Your task to perform on an android device: turn notification dots on Image 0: 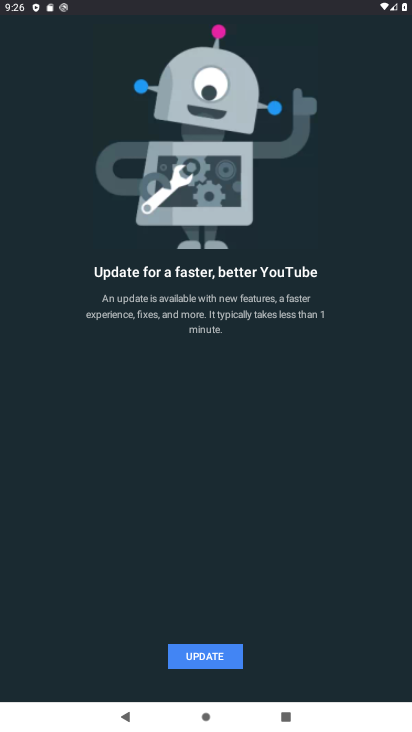
Step 0: press home button
Your task to perform on an android device: turn notification dots on Image 1: 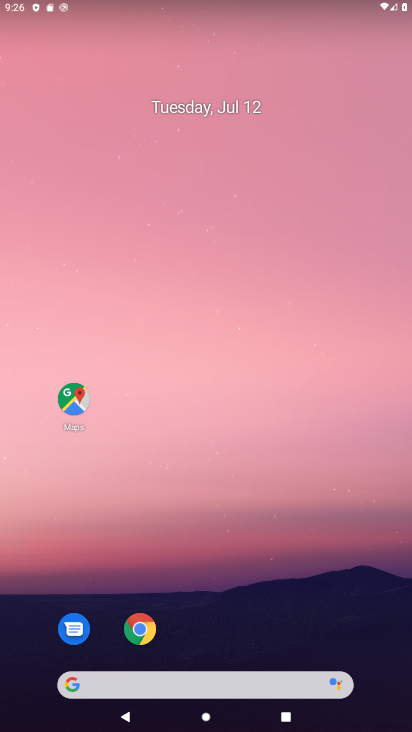
Step 1: drag from (282, 615) to (202, 124)
Your task to perform on an android device: turn notification dots on Image 2: 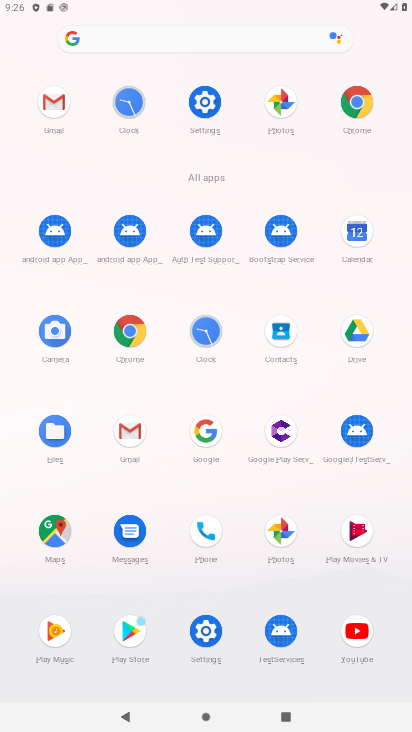
Step 2: click (214, 102)
Your task to perform on an android device: turn notification dots on Image 3: 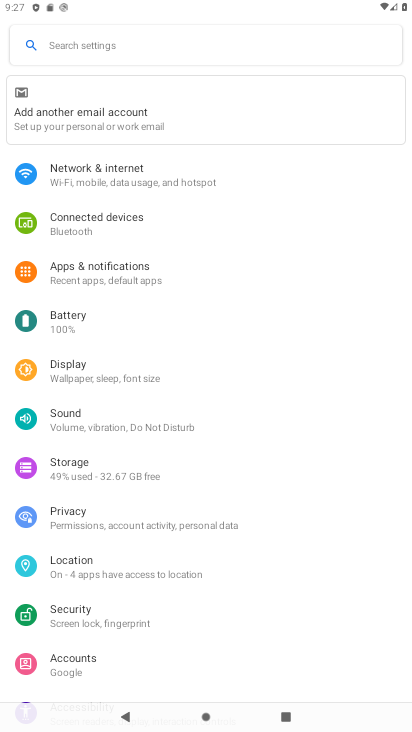
Step 3: click (124, 266)
Your task to perform on an android device: turn notification dots on Image 4: 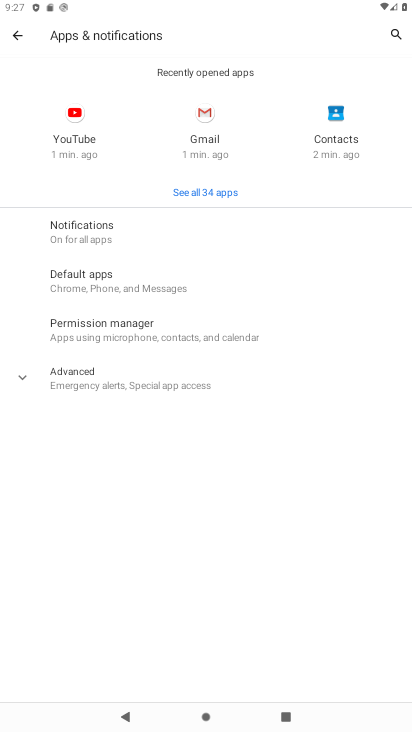
Step 4: click (76, 239)
Your task to perform on an android device: turn notification dots on Image 5: 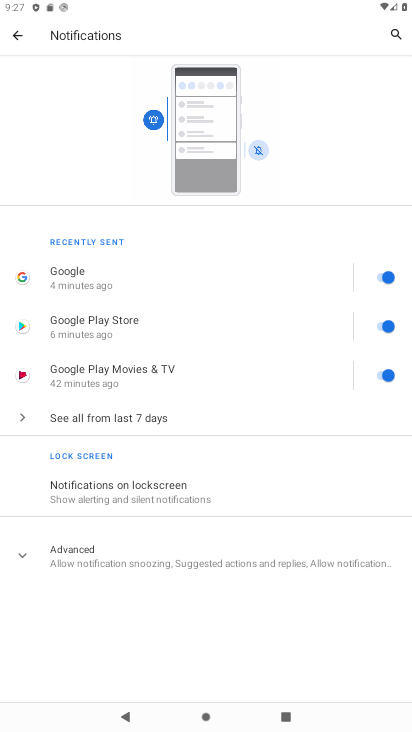
Step 5: click (145, 550)
Your task to perform on an android device: turn notification dots on Image 6: 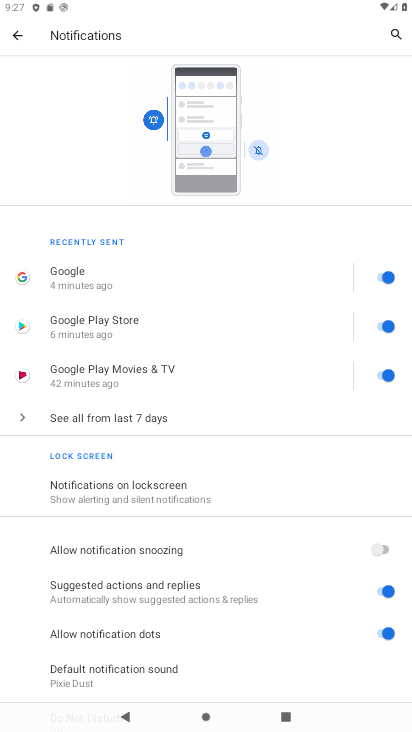
Step 6: task complete